Your task to perform on an android device: Show me recent news Image 0: 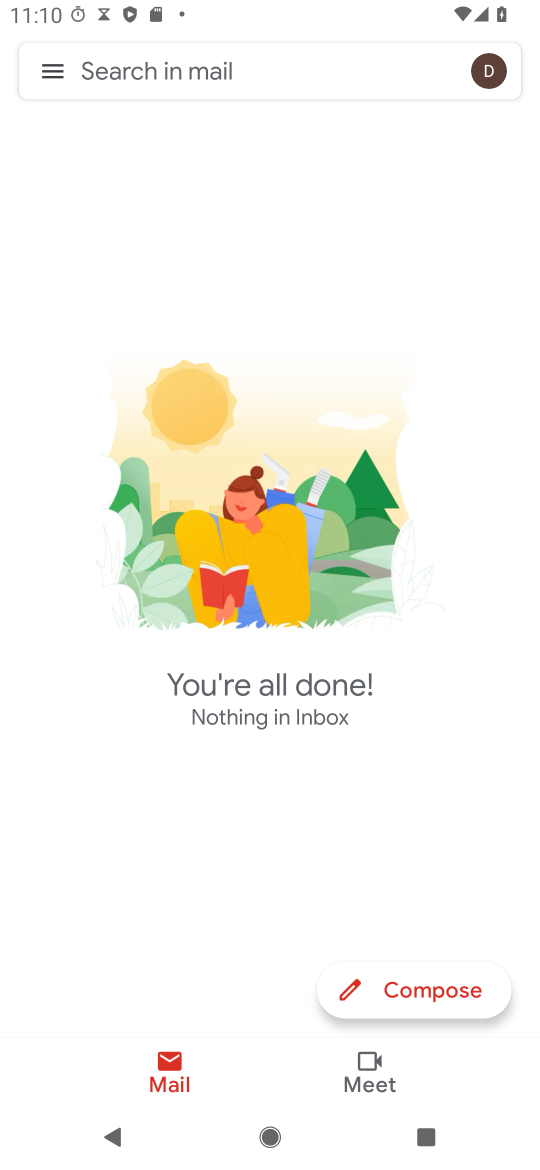
Step 0: press home button
Your task to perform on an android device: Show me recent news Image 1: 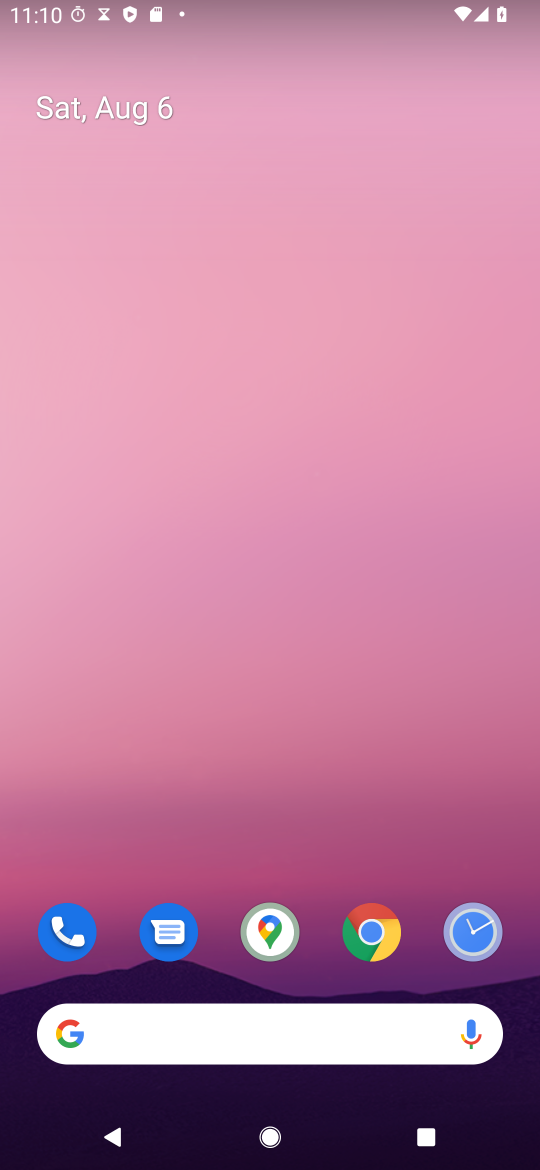
Step 1: drag from (225, 1046) to (280, 195)
Your task to perform on an android device: Show me recent news Image 2: 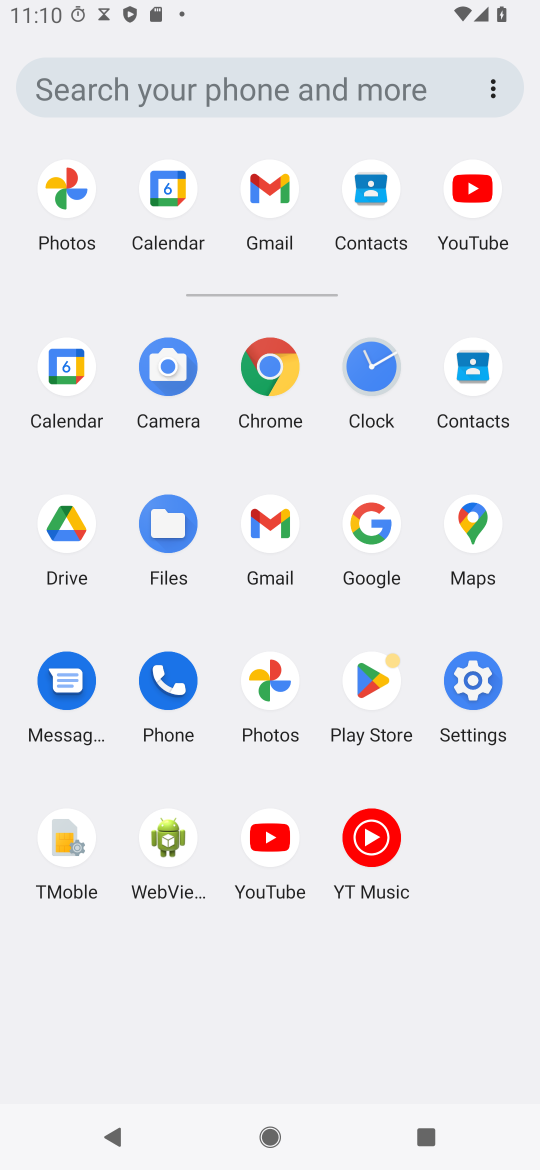
Step 2: click (369, 520)
Your task to perform on an android device: Show me recent news Image 3: 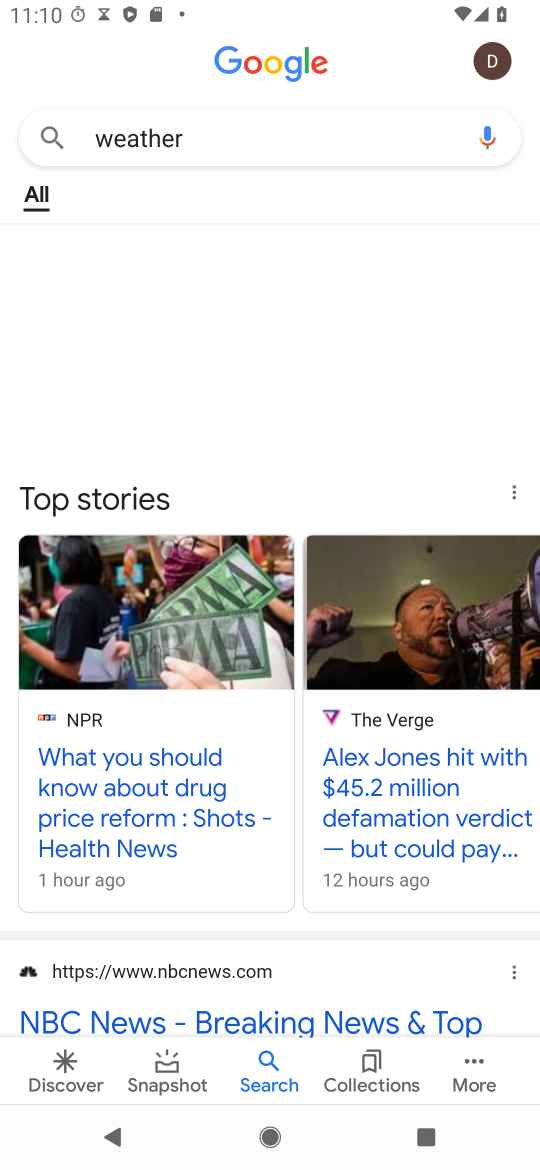
Step 3: click (301, 125)
Your task to perform on an android device: Show me recent news Image 4: 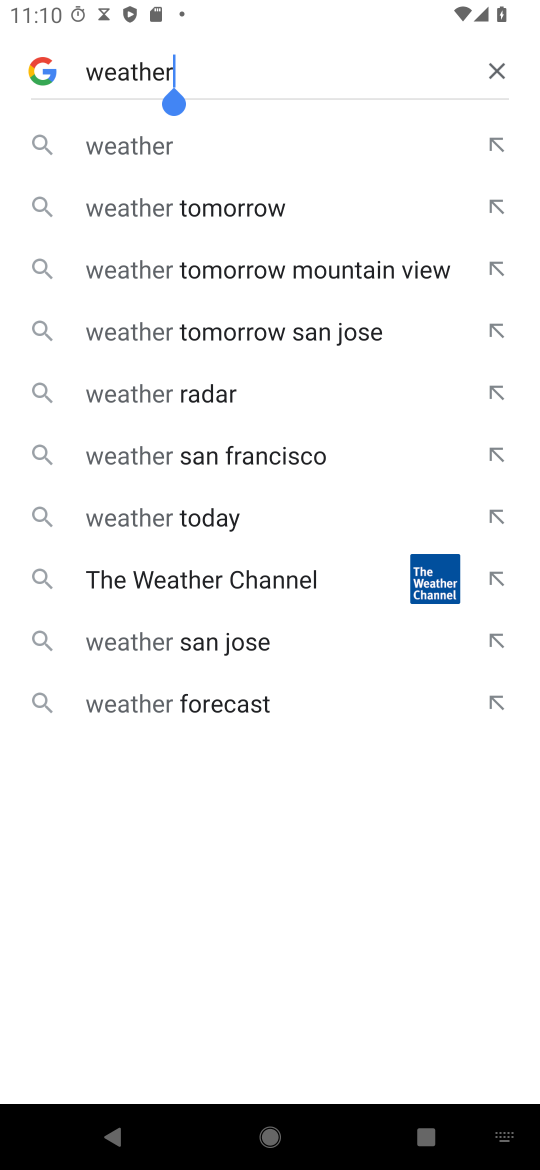
Step 4: click (493, 75)
Your task to perform on an android device: Show me recent news Image 5: 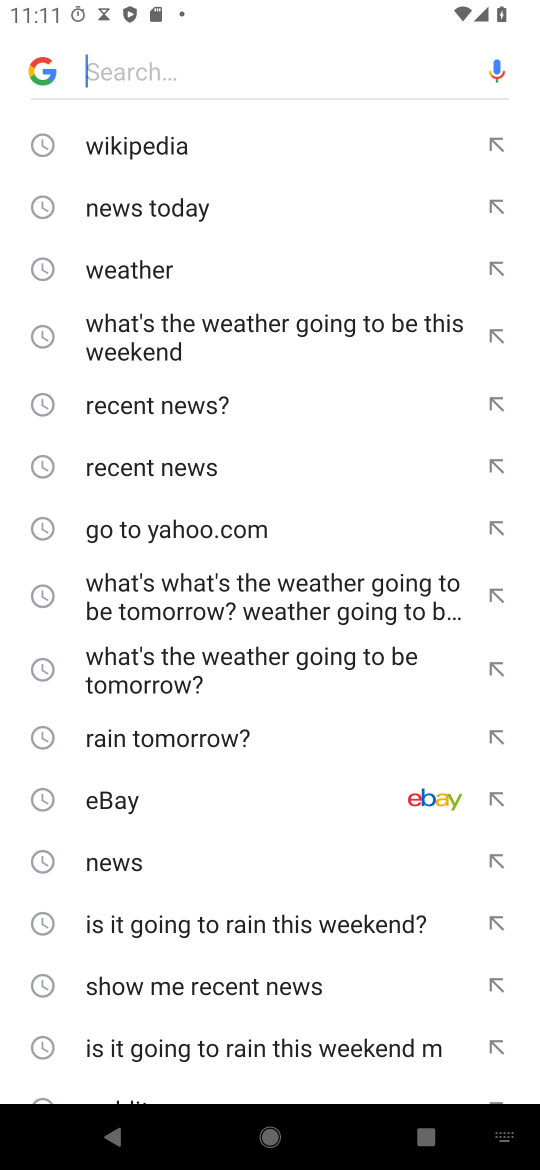
Step 5: type "recent news"
Your task to perform on an android device: Show me recent news Image 6: 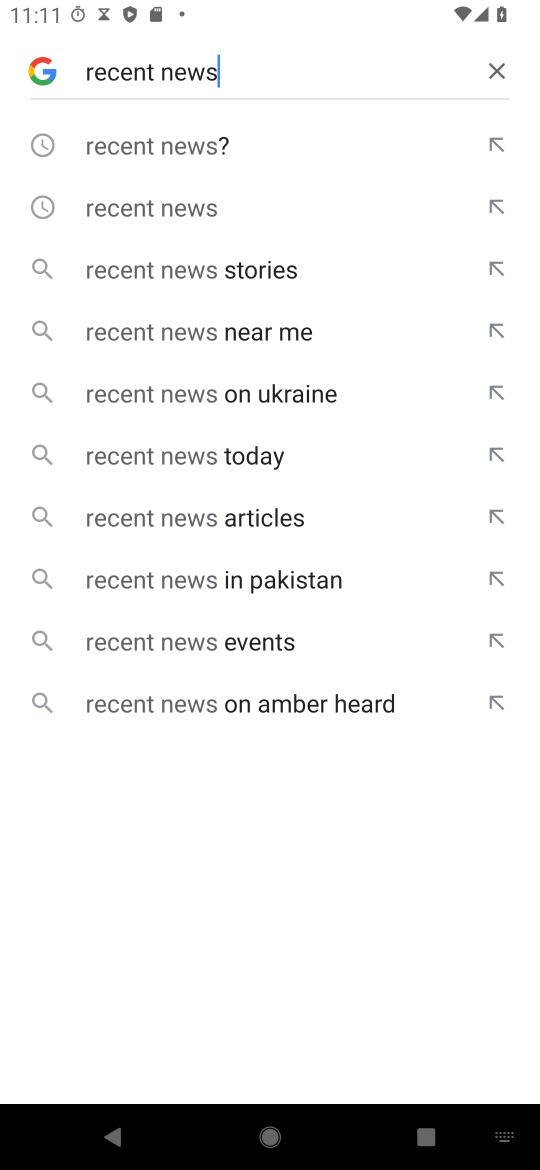
Step 6: click (216, 211)
Your task to perform on an android device: Show me recent news Image 7: 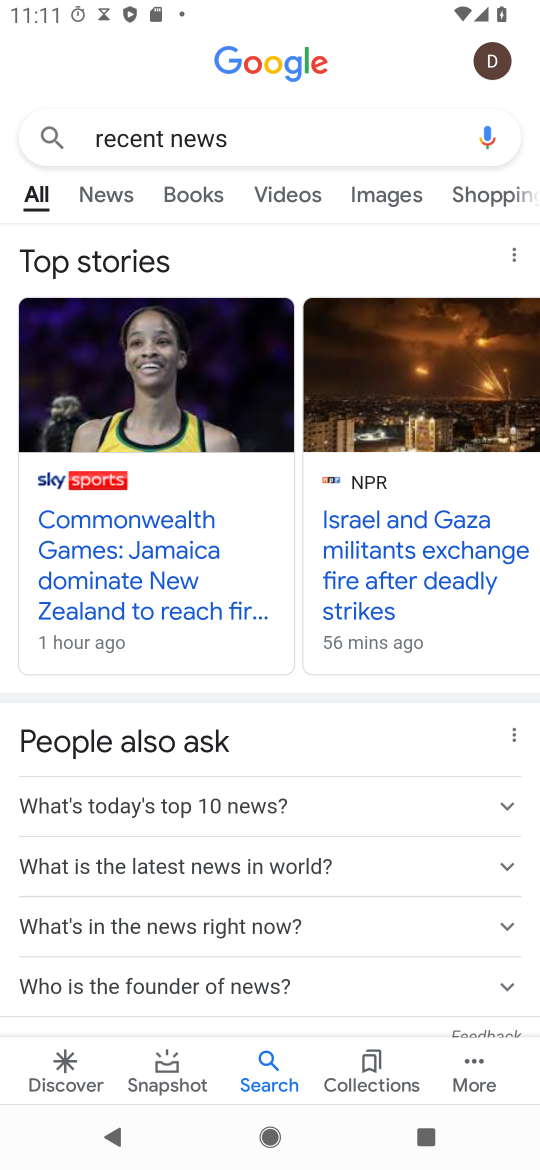
Step 7: click (89, 540)
Your task to perform on an android device: Show me recent news Image 8: 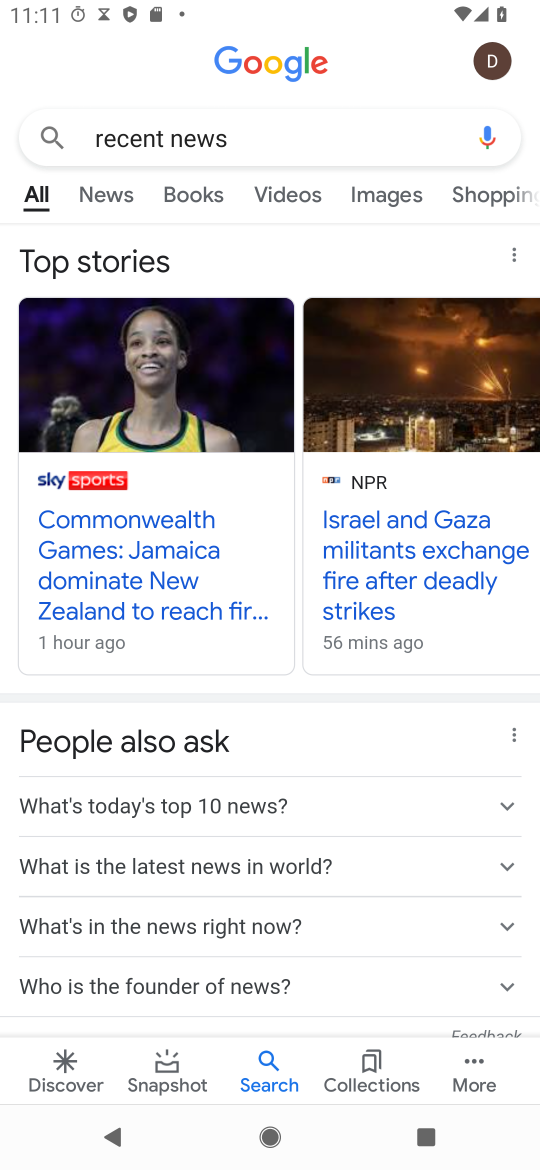
Step 8: click (129, 577)
Your task to perform on an android device: Show me recent news Image 9: 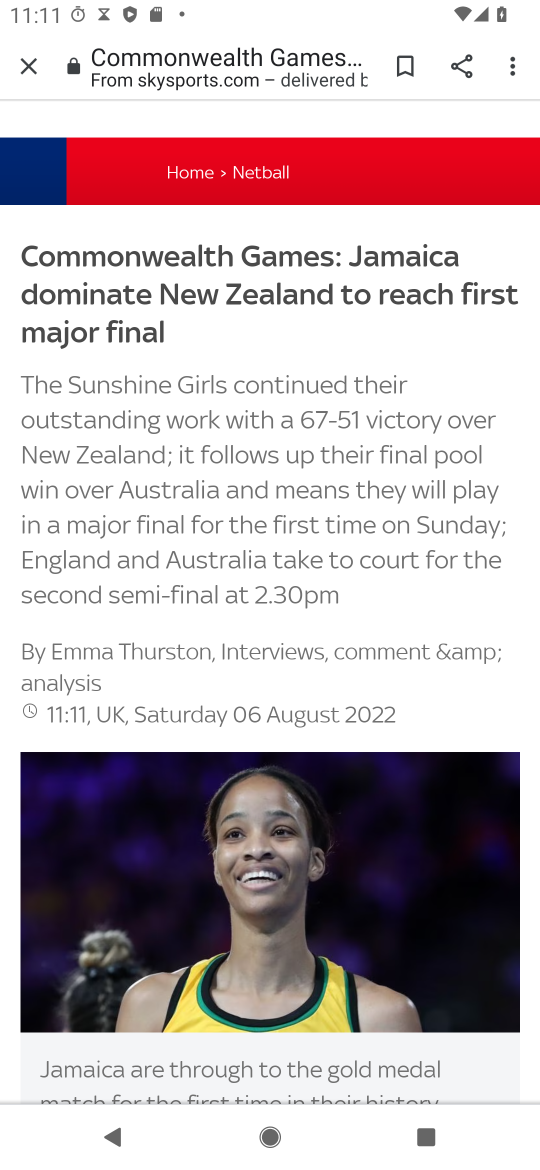
Step 9: task complete